Your task to perform on an android device: What's the weather? Image 0: 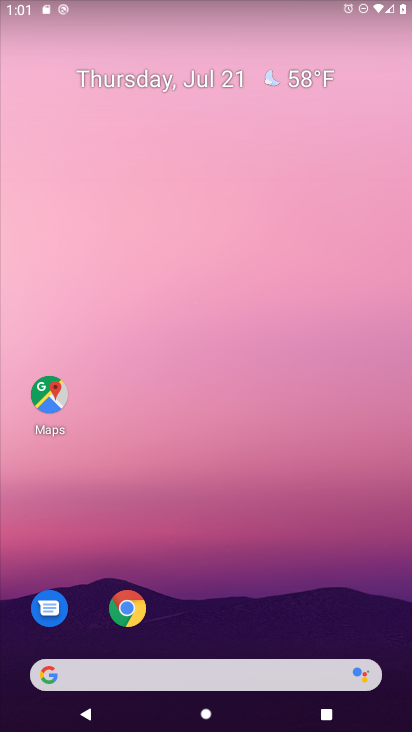
Step 0: press home button
Your task to perform on an android device: What's the weather? Image 1: 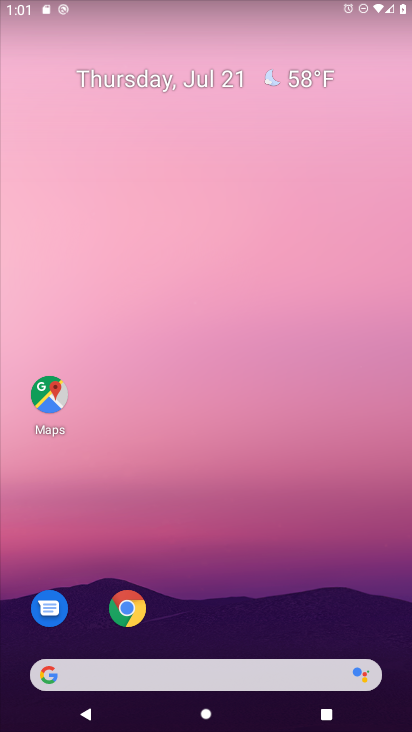
Step 1: click (47, 672)
Your task to perform on an android device: What's the weather? Image 2: 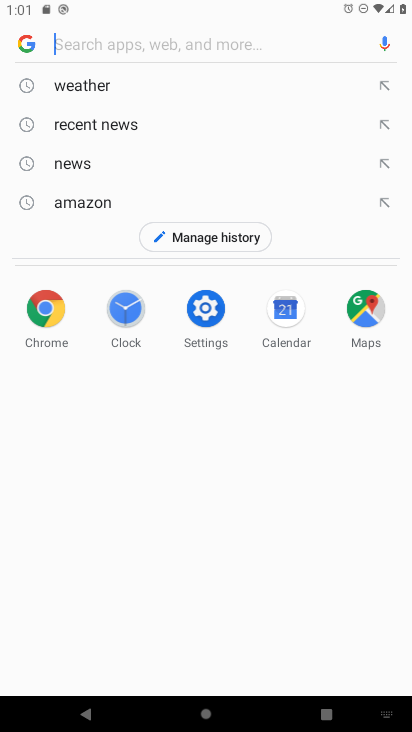
Step 2: click (79, 90)
Your task to perform on an android device: What's the weather? Image 3: 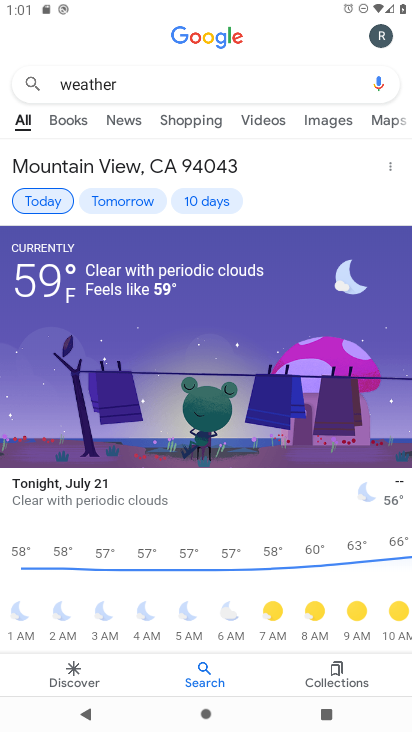
Step 3: task complete